Your task to perform on an android device: Open my contact list Image 0: 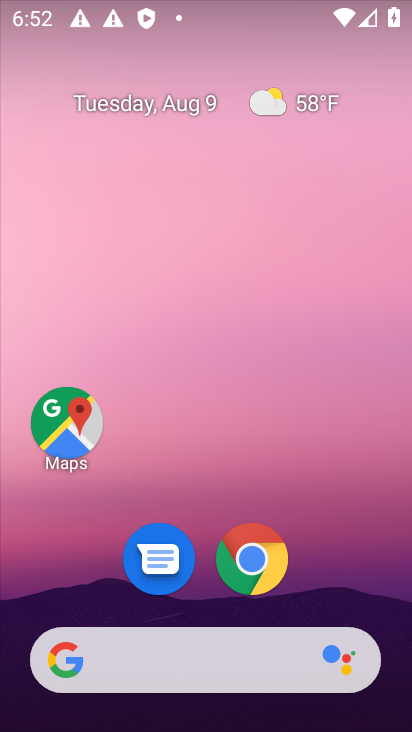
Step 0: drag from (203, 573) to (233, 85)
Your task to perform on an android device: Open my contact list Image 1: 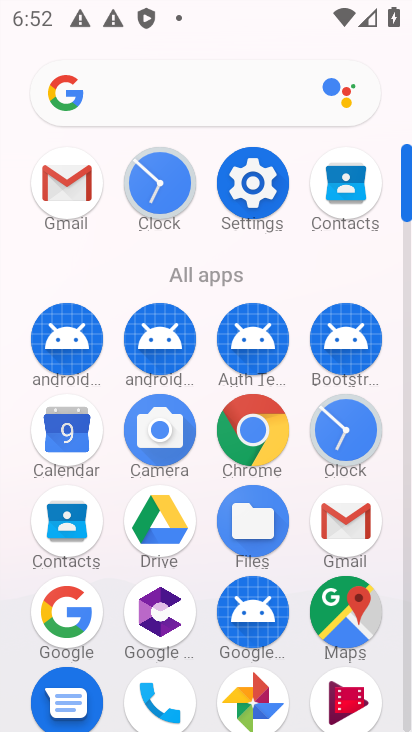
Step 1: click (69, 520)
Your task to perform on an android device: Open my contact list Image 2: 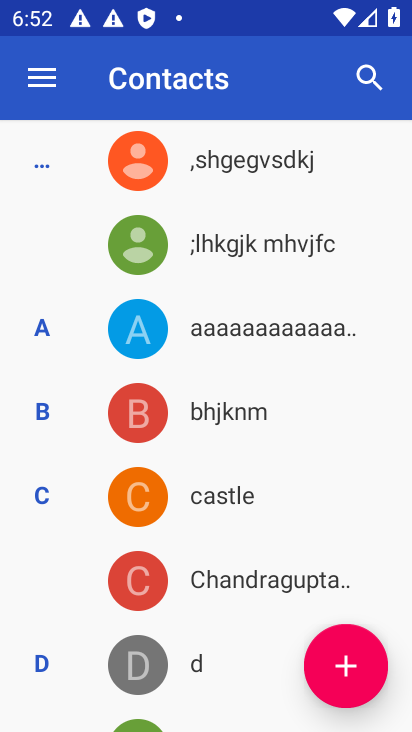
Step 2: task complete